Your task to perform on an android device: Open Google Maps and go to "Timeline" Image 0: 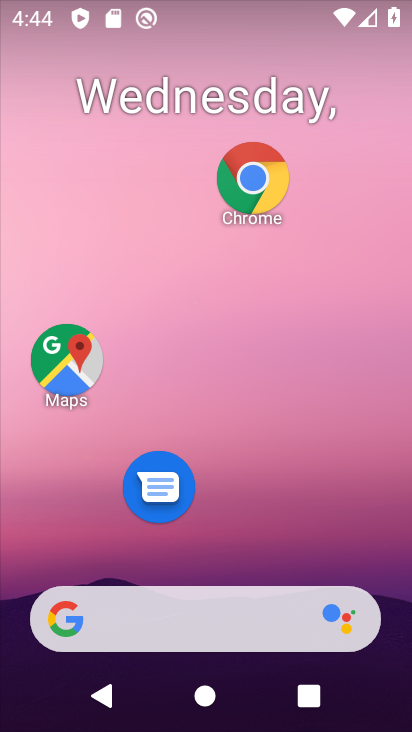
Step 0: click (71, 375)
Your task to perform on an android device: Open Google Maps and go to "Timeline" Image 1: 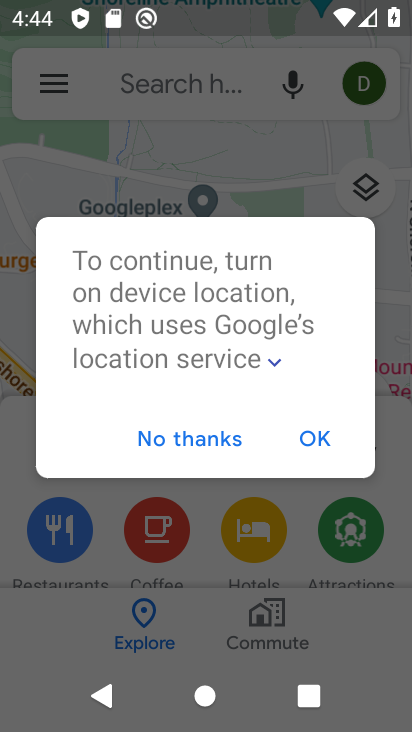
Step 1: click (314, 435)
Your task to perform on an android device: Open Google Maps and go to "Timeline" Image 2: 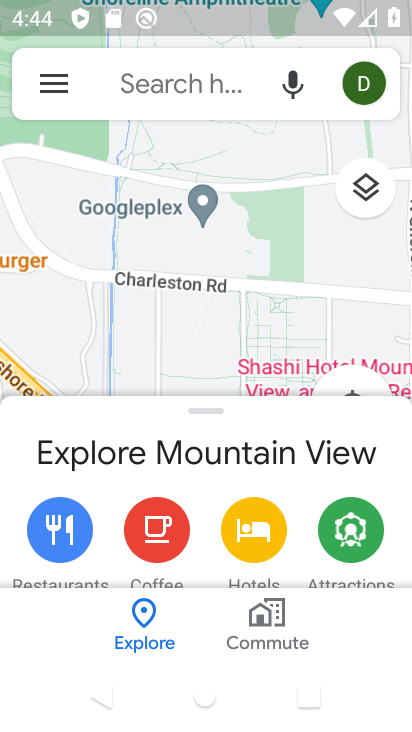
Step 2: click (65, 86)
Your task to perform on an android device: Open Google Maps and go to "Timeline" Image 3: 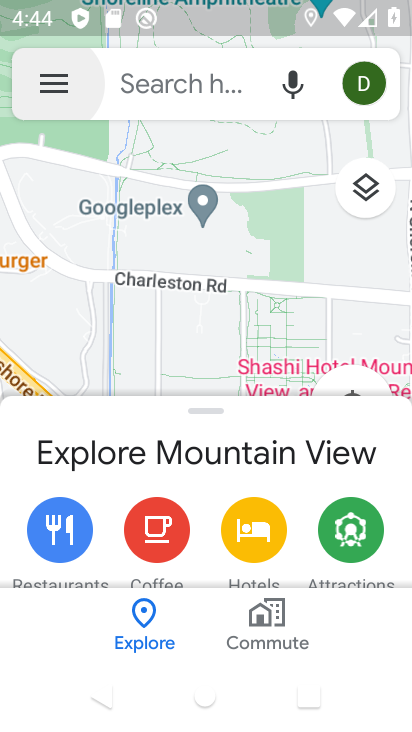
Step 3: click (58, 85)
Your task to perform on an android device: Open Google Maps and go to "Timeline" Image 4: 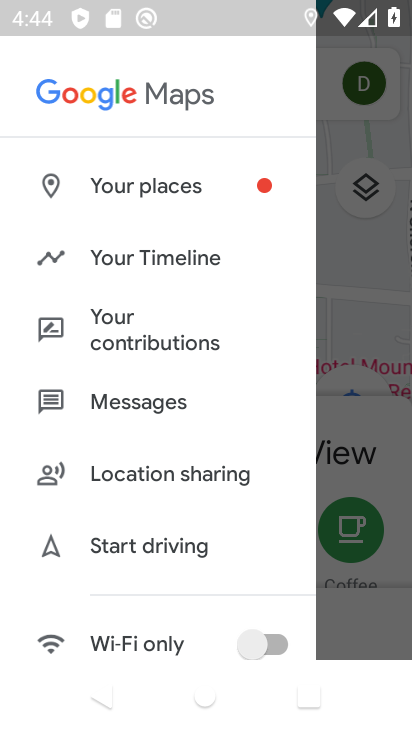
Step 4: click (167, 271)
Your task to perform on an android device: Open Google Maps and go to "Timeline" Image 5: 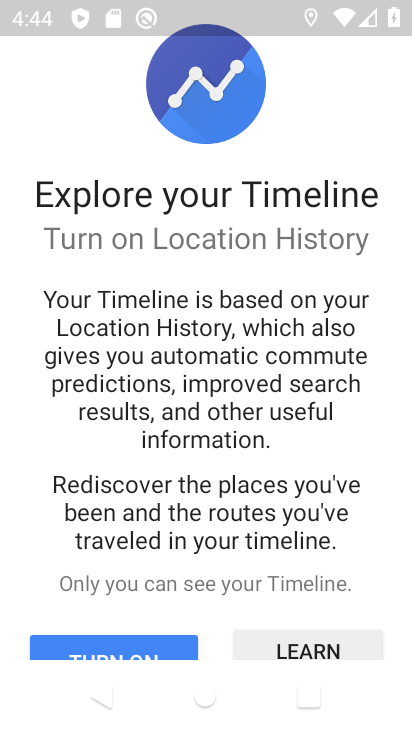
Step 5: drag from (248, 473) to (251, 269)
Your task to perform on an android device: Open Google Maps and go to "Timeline" Image 6: 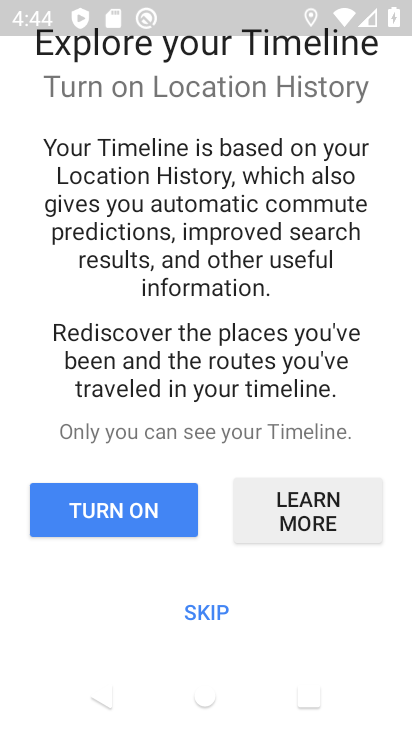
Step 6: click (166, 512)
Your task to perform on an android device: Open Google Maps and go to "Timeline" Image 7: 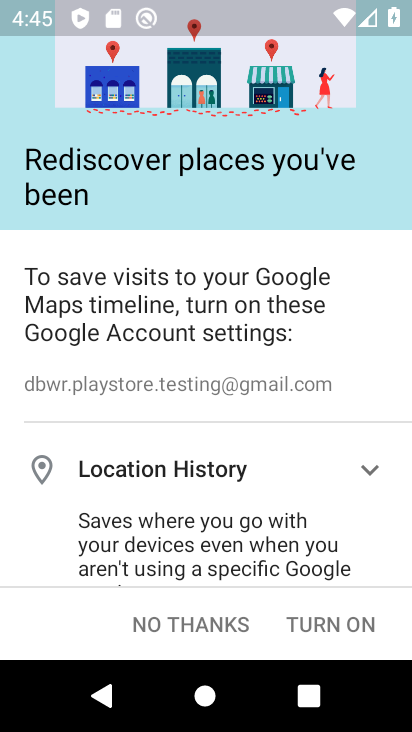
Step 7: click (218, 624)
Your task to perform on an android device: Open Google Maps and go to "Timeline" Image 8: 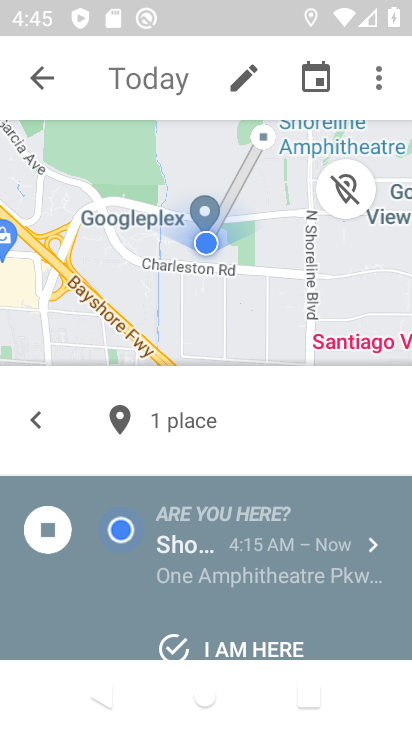
Step 8: task complete